Your task to perform on an android device: Search for sushi restaurants on Maps Image 0: 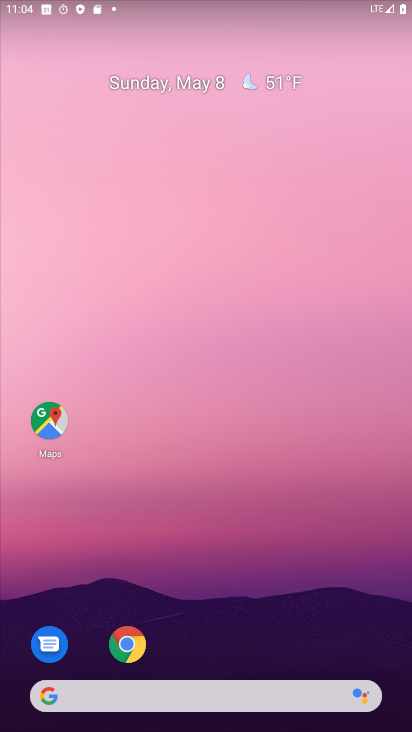
Step 0: drag from (190, 652) to (243, 287)
Your task to perform on an android device: Search for sushi restaurants on Maps Image 1: 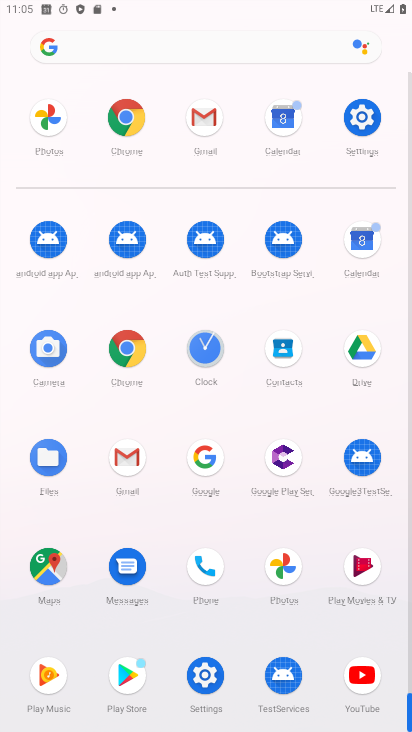
Step 1: click (50, 568)
Your task to perform on an android device: Search for sushi restaurants on Maps Image 2: 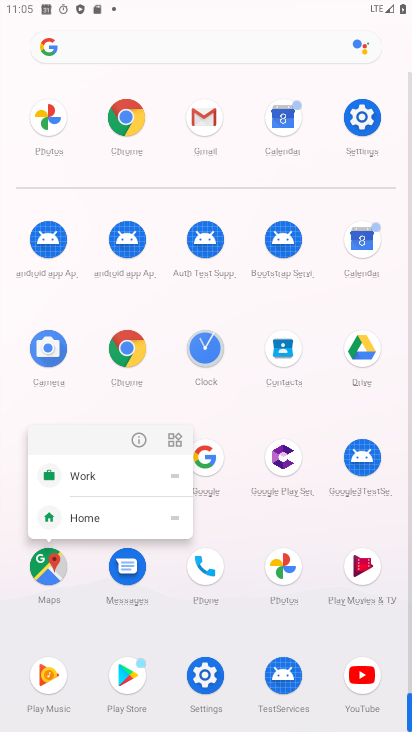
Step 2: click (135, 442)
Your task to perform on an android device: Search for sushi restaurants on Maps Image 3: 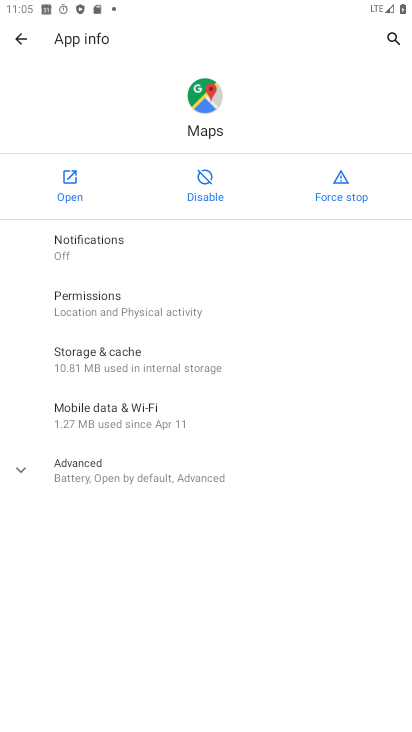
Step 3: click (64, 174)
Your task to perform on an android device: Search for sushi restaurants on Maps Image 4: 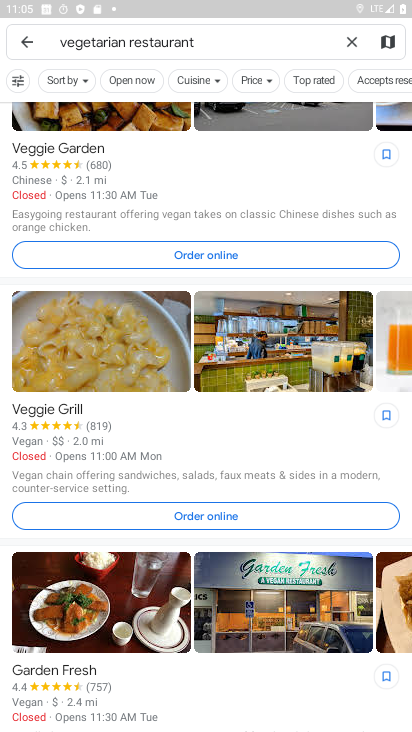
Step 4: drag from (271, 300) to (336, 656)
Your task to perform on an android device: Search for sushi restaurants on Maps Image 5: 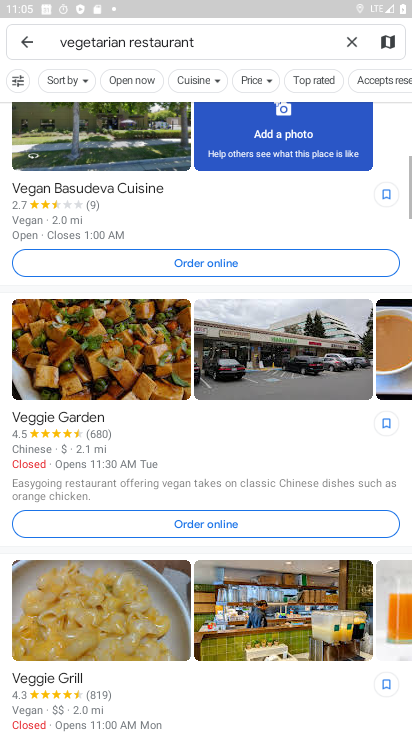
Step 5: click (353, 43)
Your task to perform on an android device: Search for sushi restaurants on Maps Image 6: 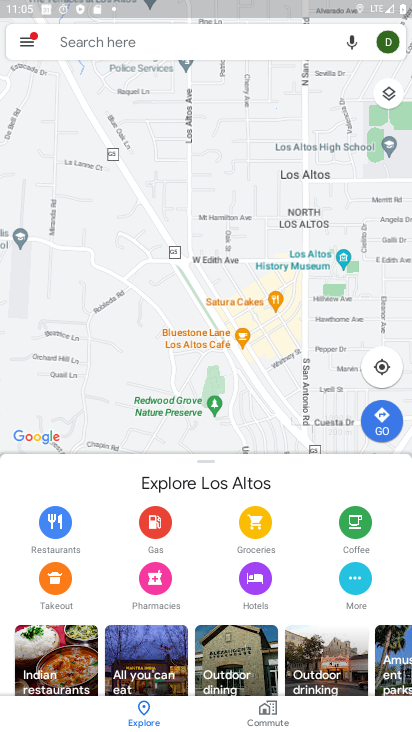
Step 6: click (177, 33)
Your task to perform on an android device: Search for sushi restaurants on Maps Image 7: 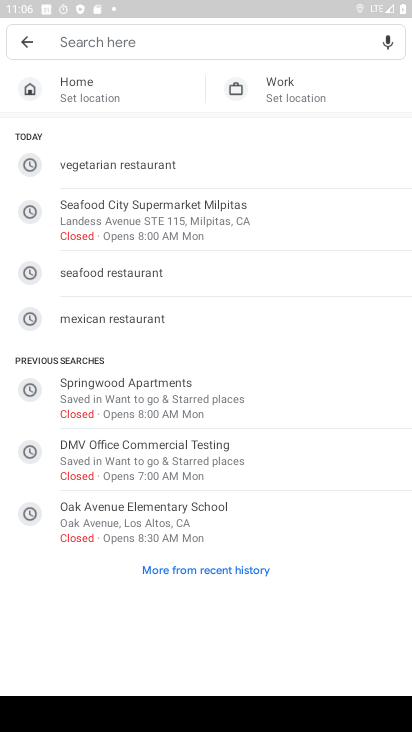
Step 7: type "sushi restaurants"
Your task to perform on an android device: Search for sushi restaurants on Maps Image 8: 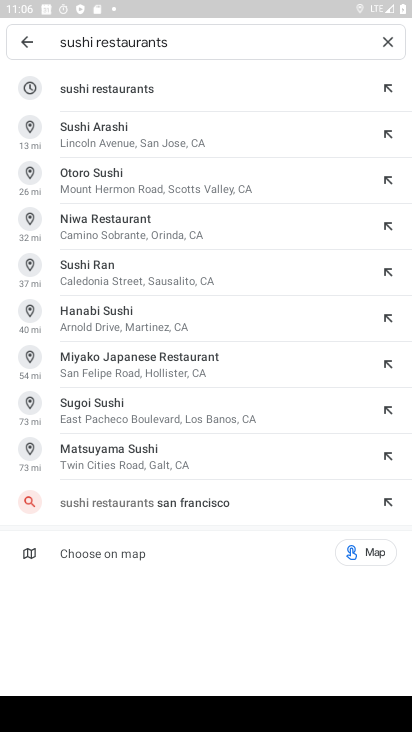
Step 8: click (190, 98)
Your task to perform on an android device: Search for sushi restaurants on Maps Image 9: 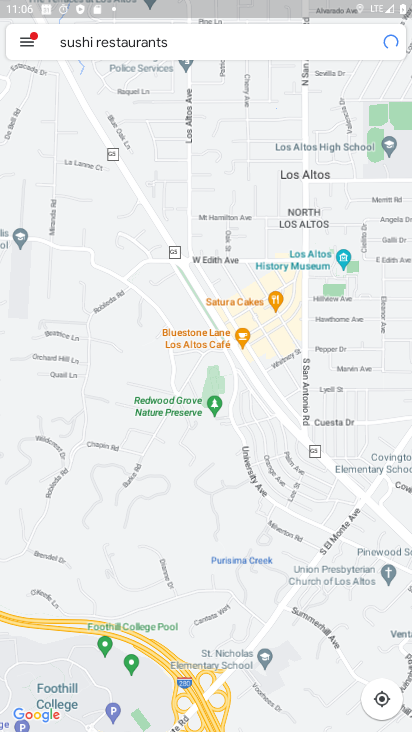
Step 9: task complete